Your task to perform on an android device: clear history in the chrome app Image 0: 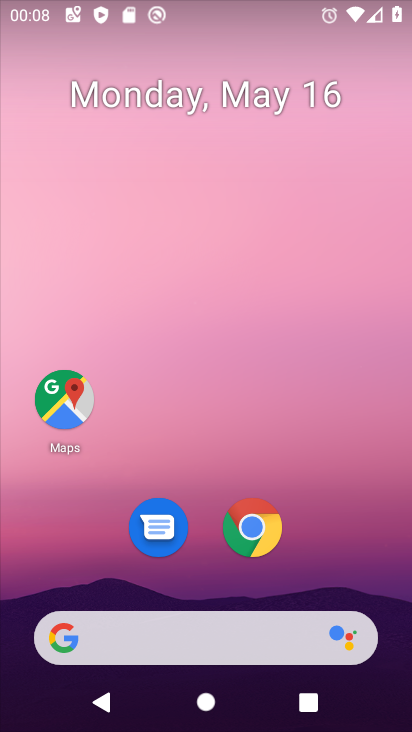
Step 0: click (266, 542)
Your task to perform on an android device: clear history in the chrome app Image 1: 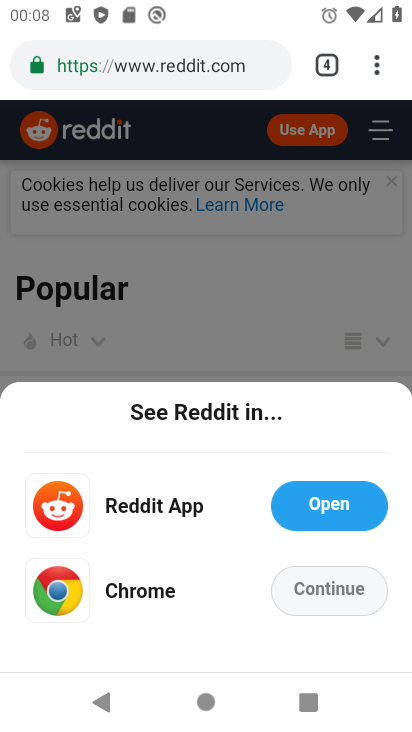
Step 1: click (380, 62)
Your task to perform on an android device: clear history in the chrome app Image 2: 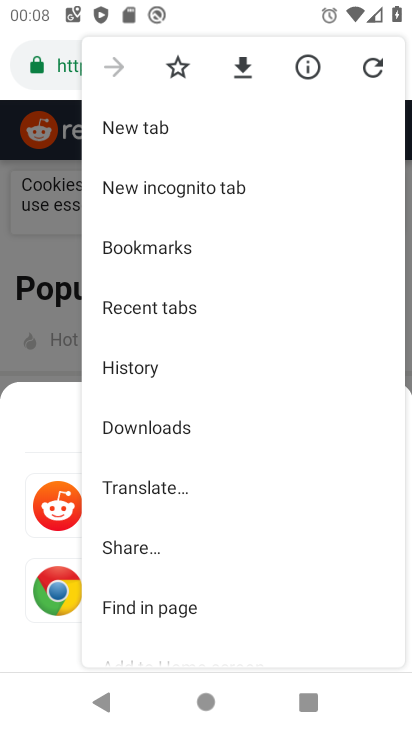
Step 2: click (176, 374)
Your task to perform on an android device: clear history in the chrome app Image 3: 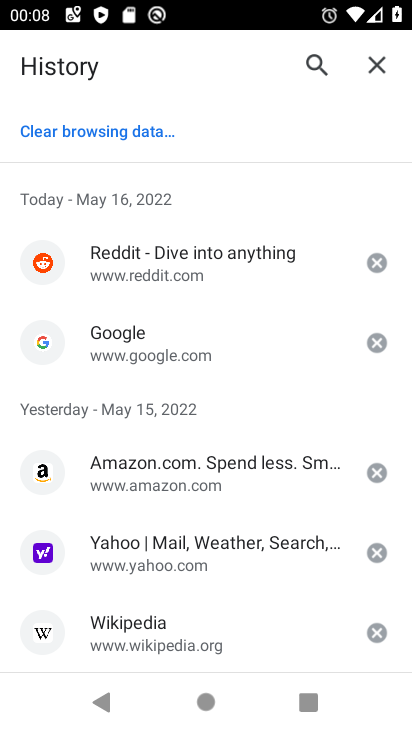
Step 3: click (97, 139)
Your task to perform on an android device: clear history in the chrome app Image 4: 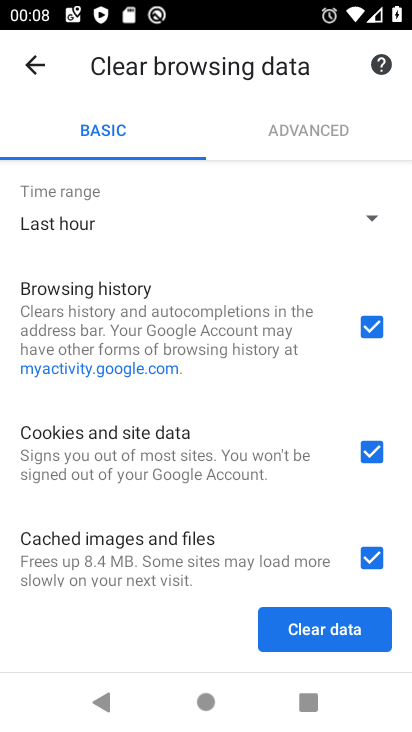
Step 4: click (368, 460)
Your task to perform on an android device: clear history in the chrome app Image 5: 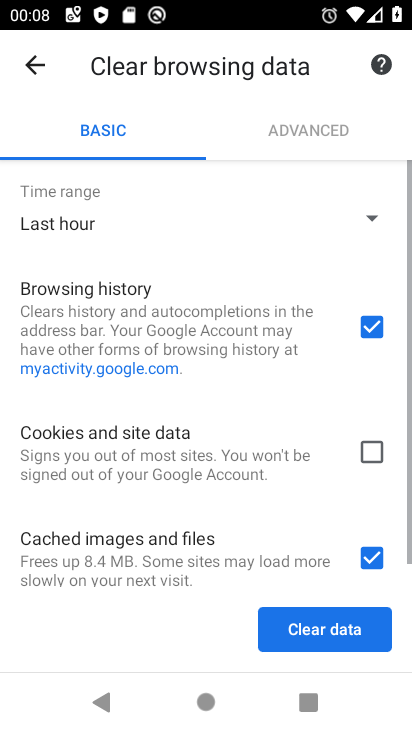
Step 5: click (381, 566)
Your task to perform on an android device: clear history in the chrome app Image 6: 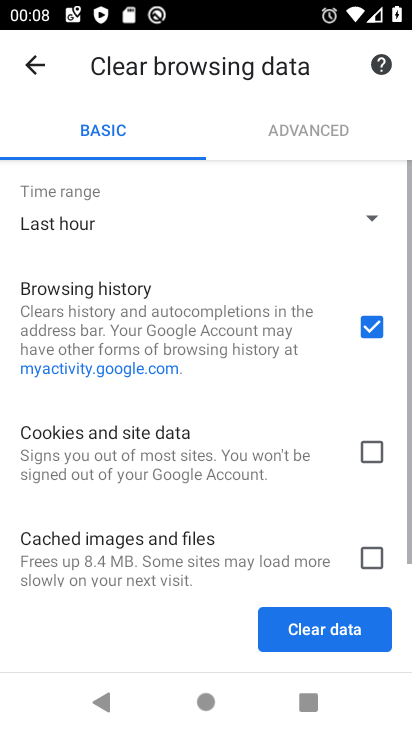
Step 6: click (347, 625)
Your task to perform on an android device: clear history in the chrome app Image 7: 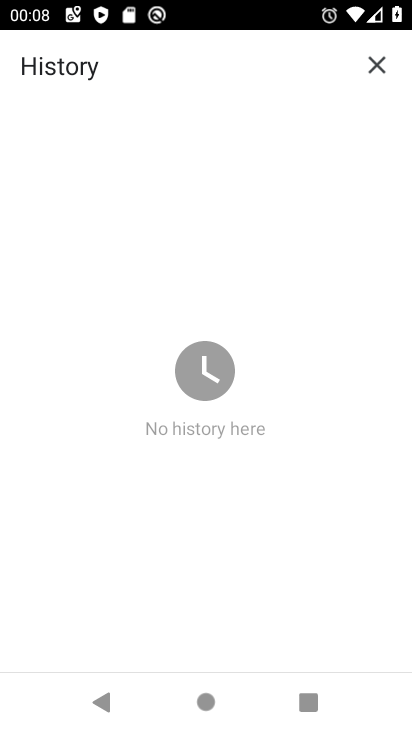
Step 7: task complete